Your task to perform on an android device: search for starred emails in the gmail app Image 0: 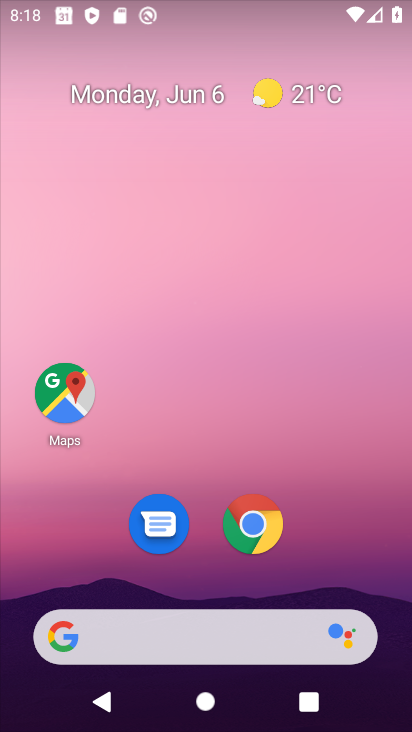
Step 0: drag from (212, 451) to (204, 3)
Your task to perform on an android device: search for starred emails in the gmail app Image 1: 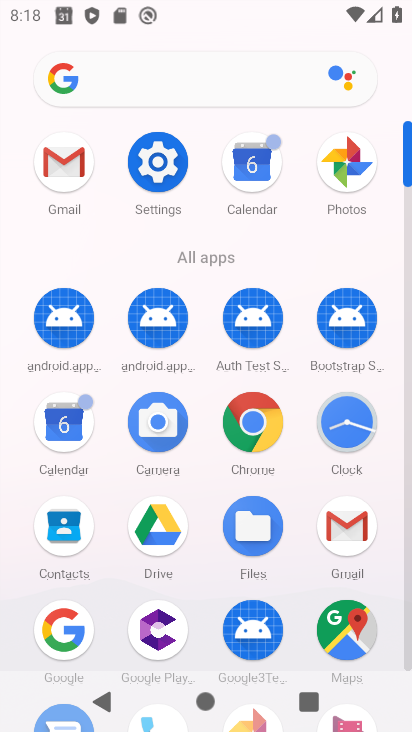
Step 1: click (86, 161)
Your task to perform on an android device: search for starred emails in the gmail app Image 2: 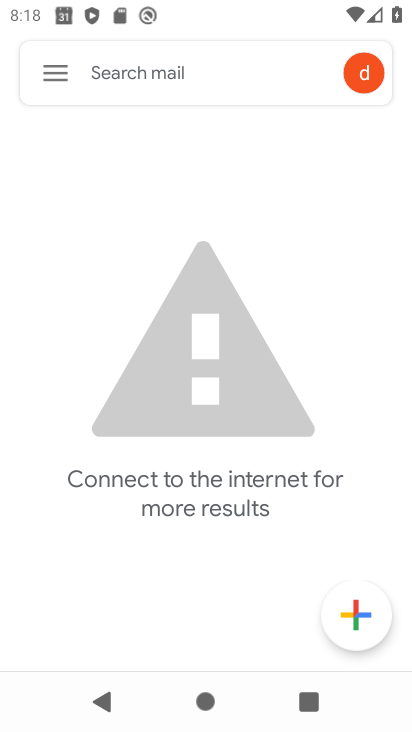
Step 2: click (61, 72)
Your task to perform on an android device: search for starred emails in the gmail app Image 3: 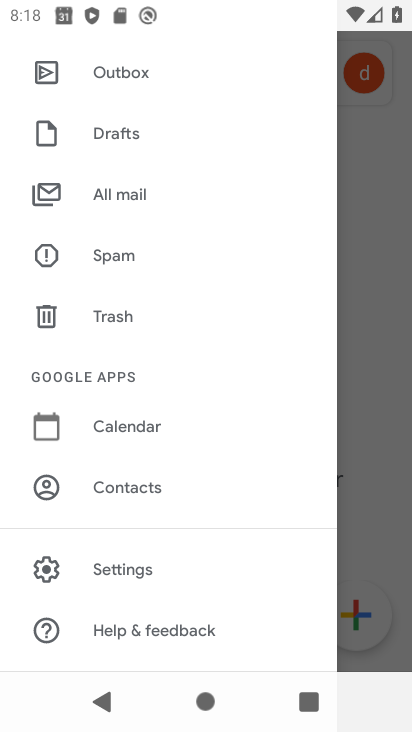
Step 3: click (116, 566)
Your task to perform on an android device: search for starred emails in the gmail app Image 4: 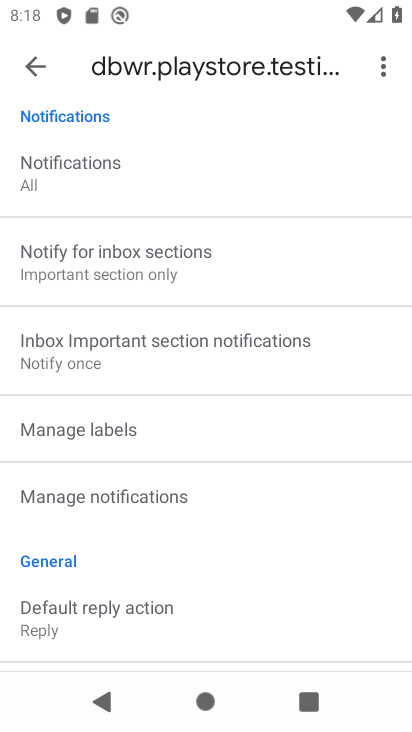
Step 4: click (38, 64)
Your task to perform on an android device: search for starred emails in the gmail app Image 5: 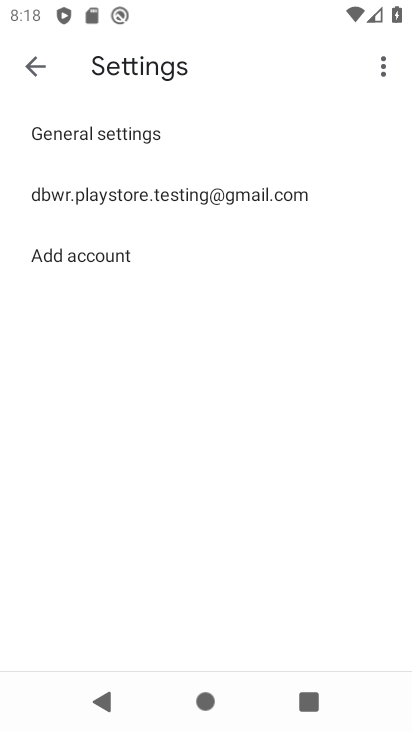
Step 5: click (41, 67)
Your task to perform on an android device: search for starred emails in the gmail app Image 6: 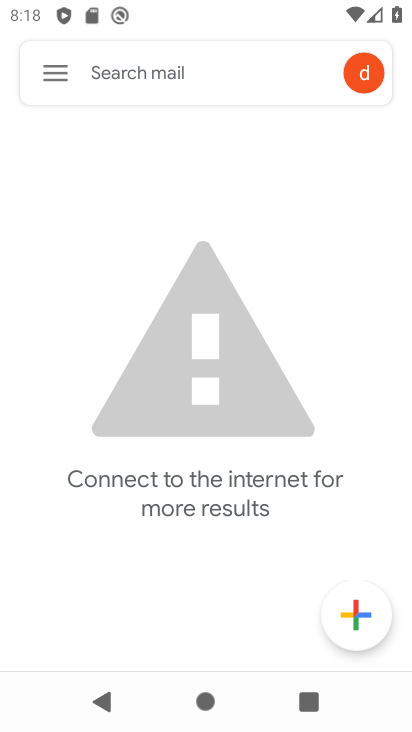
Step 6: click (48, 73)
Your task to perform on an android device: search for starred emails in the gmail app Image 7: 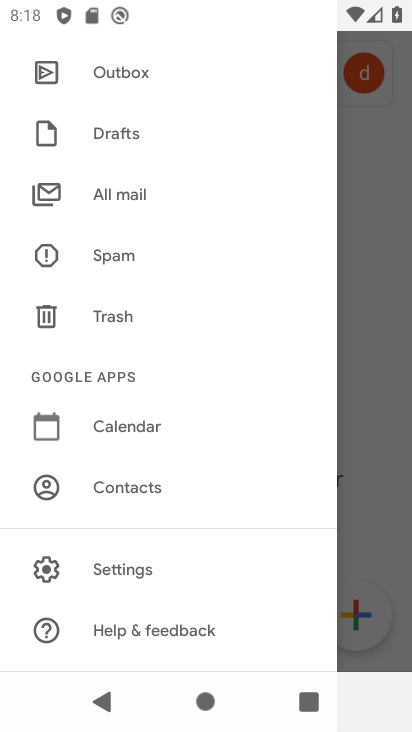
Step 7: drag from (208, 124) to (179, 542)
Your task to perform on an android device: search for starred emails in the gmail app Image 8: 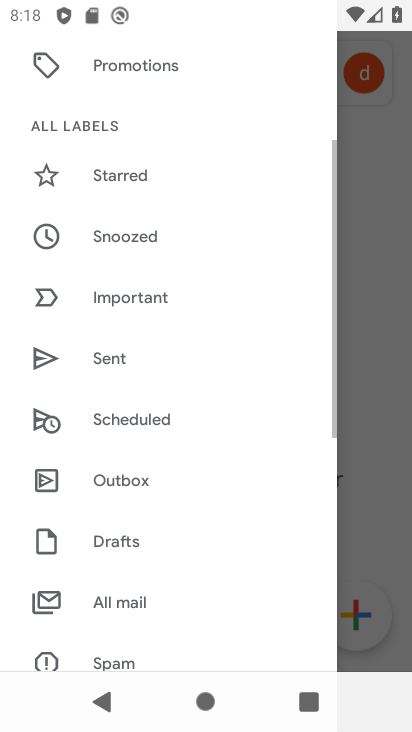
Step 8: click (139, 195)
Your task to perform on an android device: search for starred emails in the gmail app Image 9: 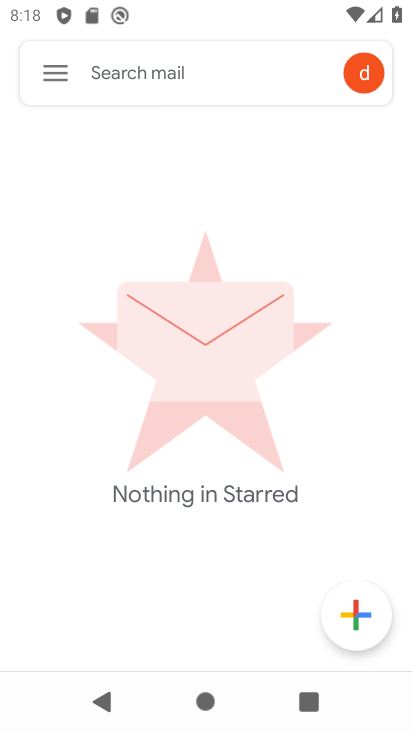
Step 9: task complete